Your task to perform on an android device: Open Google Maps Image 0: 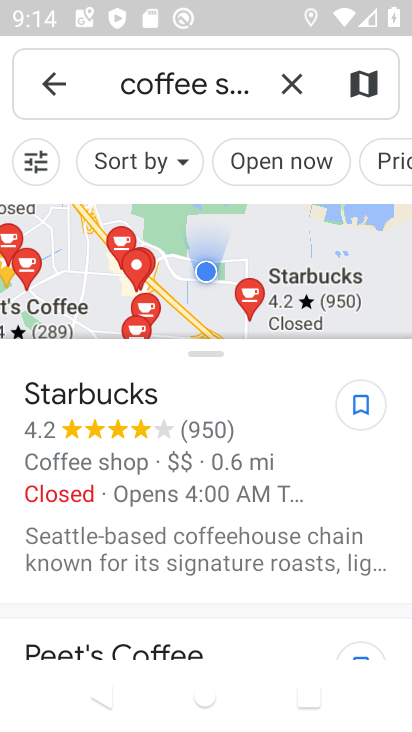
Step 0: press home button
Your task to perform on an android device: Open Google Maps Image 1: 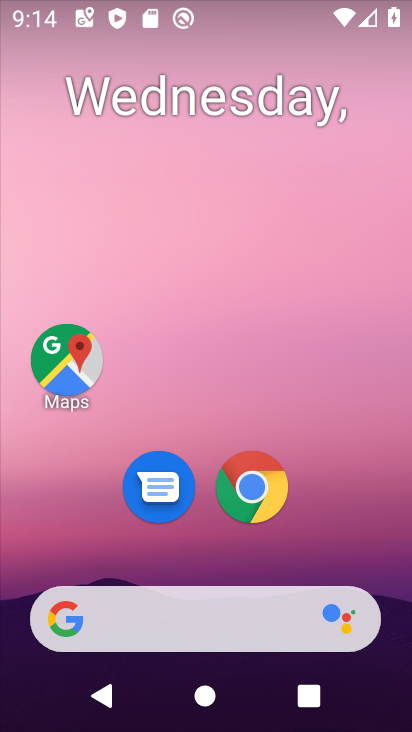
Step 1: drag from (392, 548) to (356, 154)
Your task to perform on an android device: Open Google Maps Image 2: 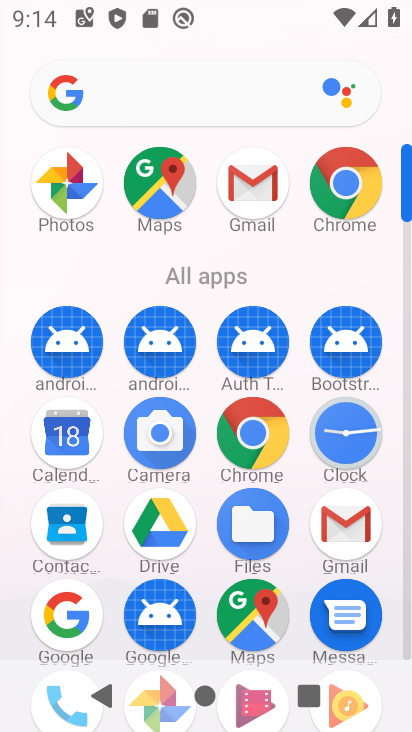
Step 2: click (255, 617)
Your task to perform on an android device: Open Google Maps Image 3: 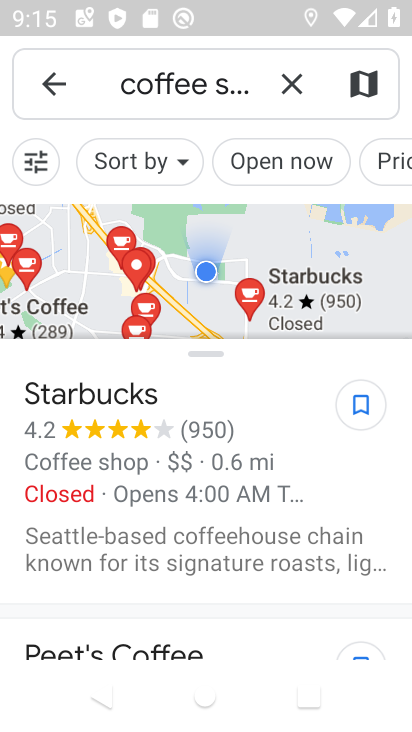
Step 3: task complete